Your task to perform on an android device: turn on notifications settings in the gmail app Image 0: 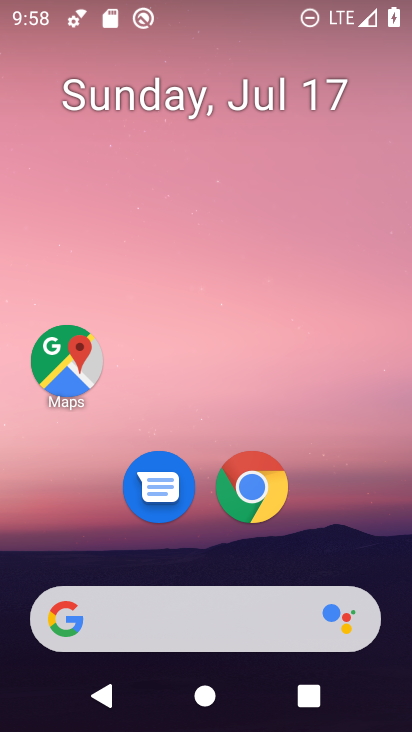
Step 0: drag from (243, 573) to (272, 6)
Your task to perform on an android device: turn on notifications settings in the gmail app Image 1: 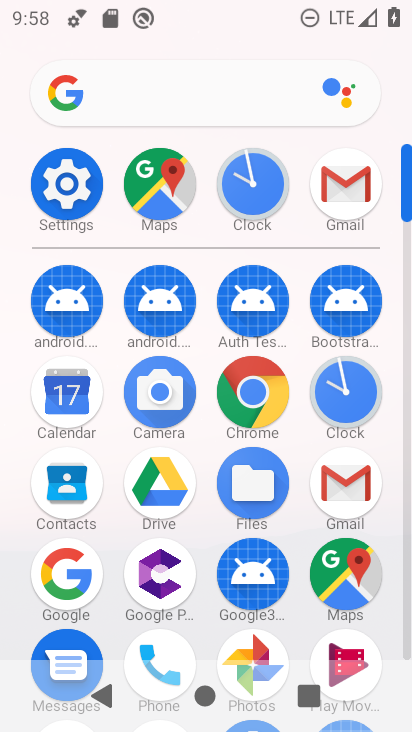
Step 1: click (339, 182)
Your task to perform on an android device: turn on notifications settings in the gmail app Image 2: 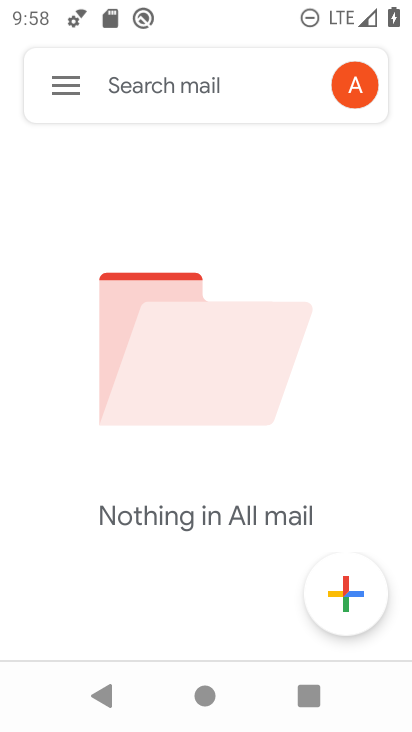
Step 2: click (54, 79)
Your task to perform on an android device: turn on notifications settings in the gmail app Image 3: 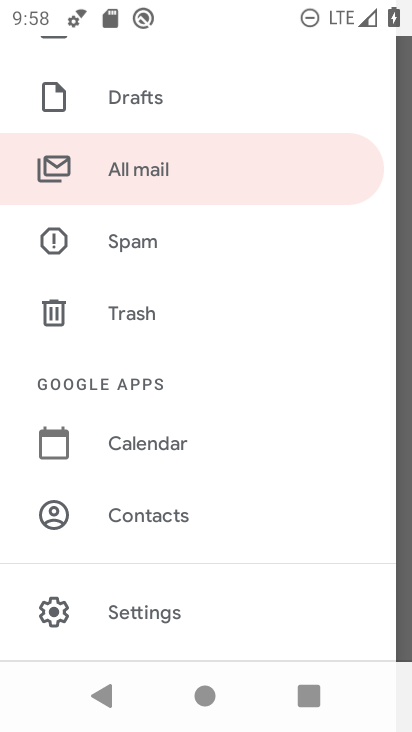
Step 3: click (138, 623)
Your task to perform on an android device: turn on notifications settings in the gmail app Image 4: 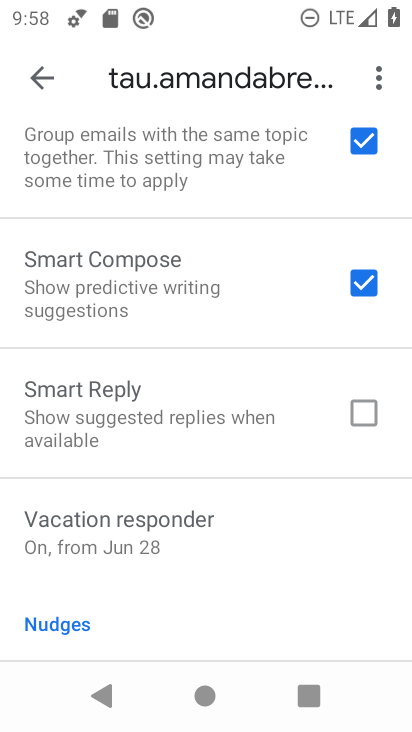
Step 4: drag from (229, 189) to (190, 690)
Your task to perform on an android device: turn on notifications settings in the gmail app Image 5: 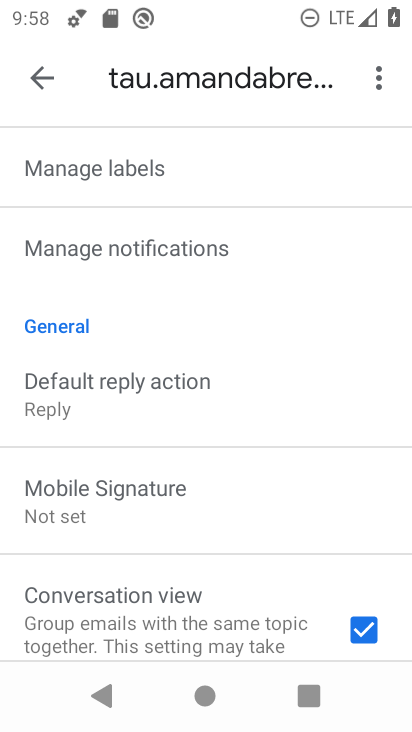
Step 5: click (130, 244)
Your task to perform on an android device: turn on notifications settings in the gmail app Image 6: 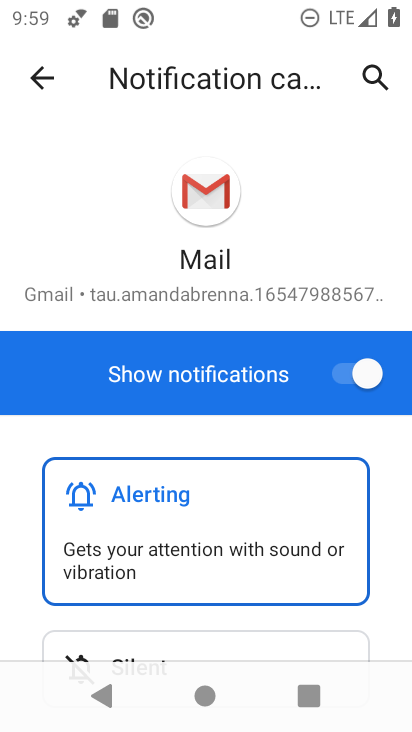
Step 6: task complete